Your task to perform on an android device: turn on javascript in the chrome app Image 0: 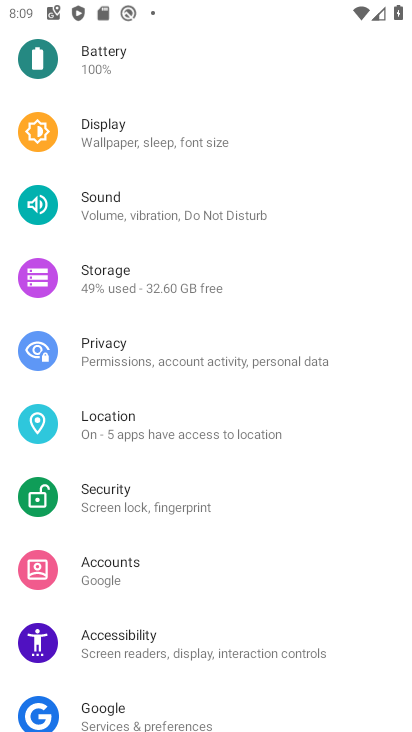
Step 0: press home button
Your task to perform on an android device: turn on javascript in the chrome app Image 1: 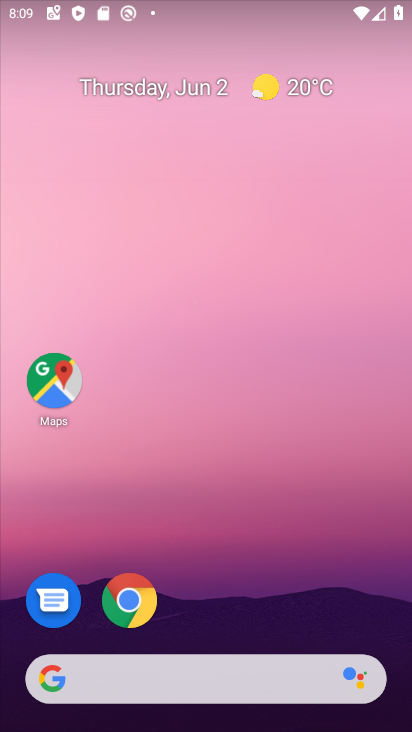
Step 1: drag from (362, 613) to (367, 248)
Your task to perform on an android device: turn on javascript in the chrome app Image 2: 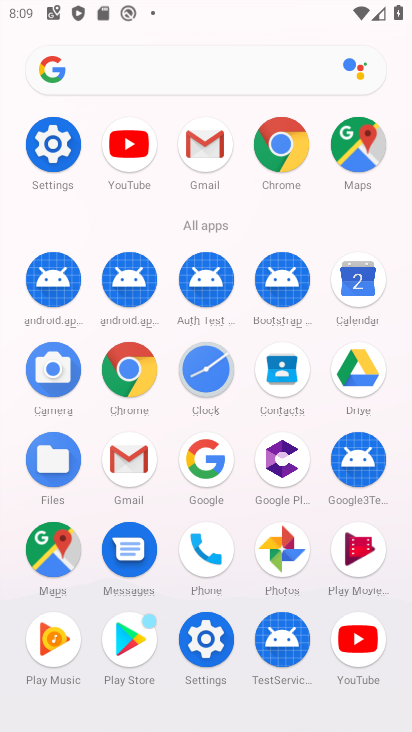
Step 2: click (134, 376)
Your task to perform on an android device: turn on javascript in the chrome app Image 3: 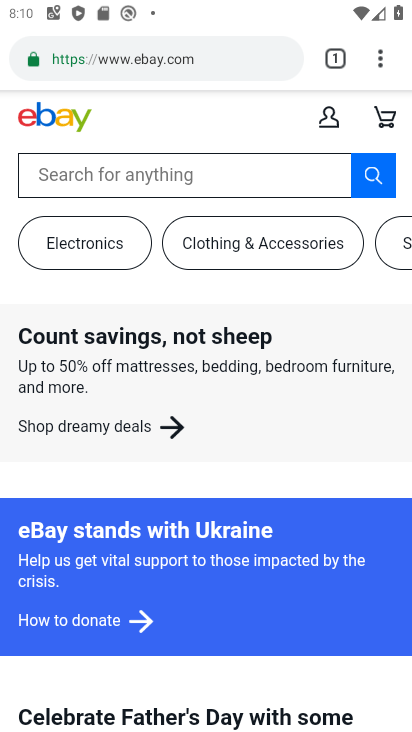
Step 3: click (379, 61)
Your task to perform on an android device: turn on javascript in the chrome app Image 4: 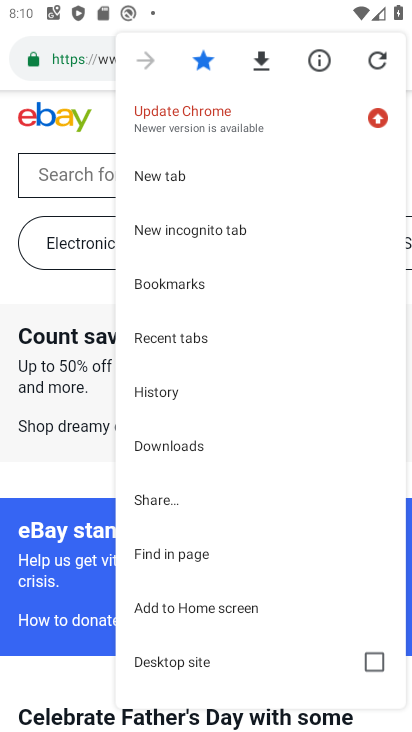
Step 4: drag from (350, 414) to (353, 334)
Your task to perform on an android device: turn on javascript in the chrome app Image 5: 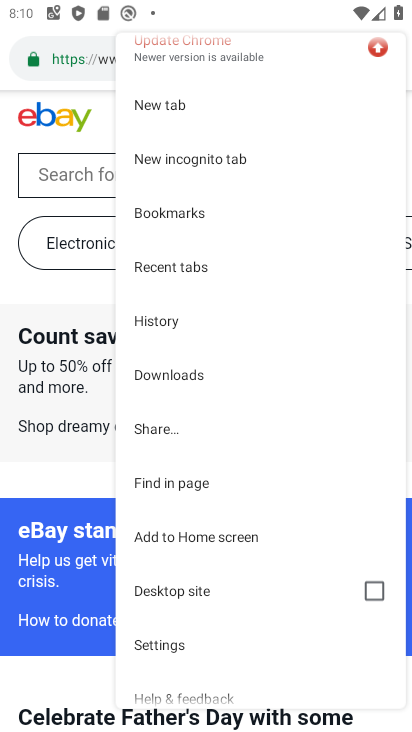
Step 5: drag from (331, 436) to (332, 303)
Your task to perform on an android device: turn on javascript in the chrome app Image 6: 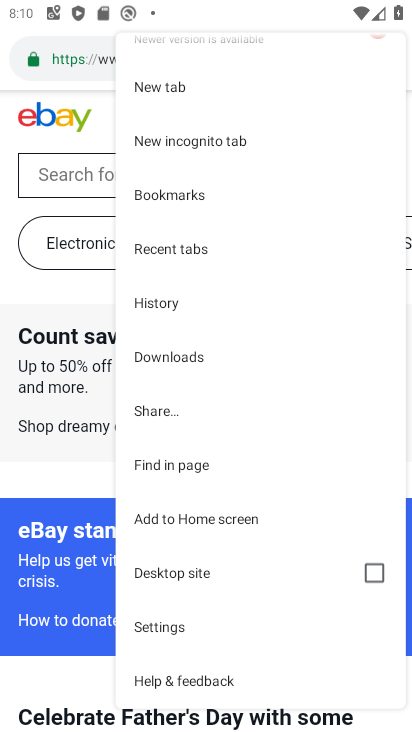
Step 6: click (208, 637)
Your task to perform on an android device: turn on javascript in the chrome app Image 7: 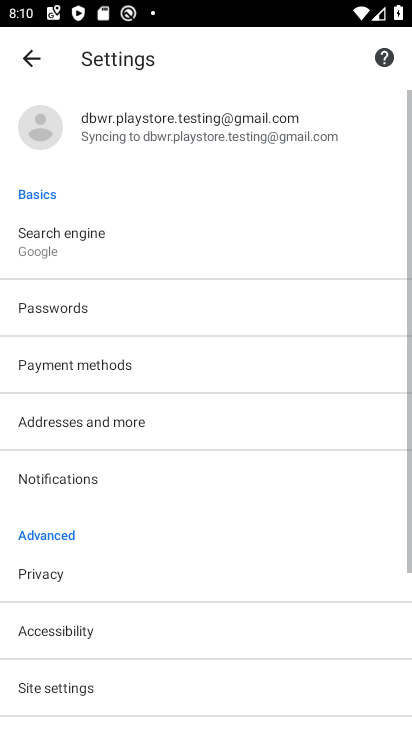
Step 7: drag from (344, 518) to (343, 423)
Your task to perform on an android device: turn on javascript in the chrome app Image 8: 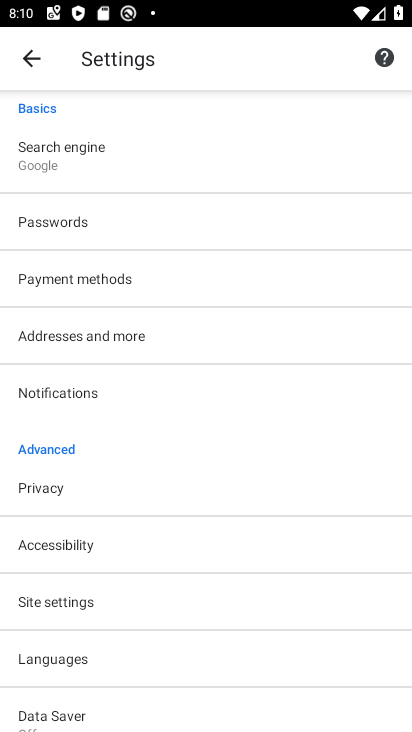
Step 8: drag from (334, 520) to (337, 345)
Your task to perform on an android device: turn on javascript in the chrome app Image 9: 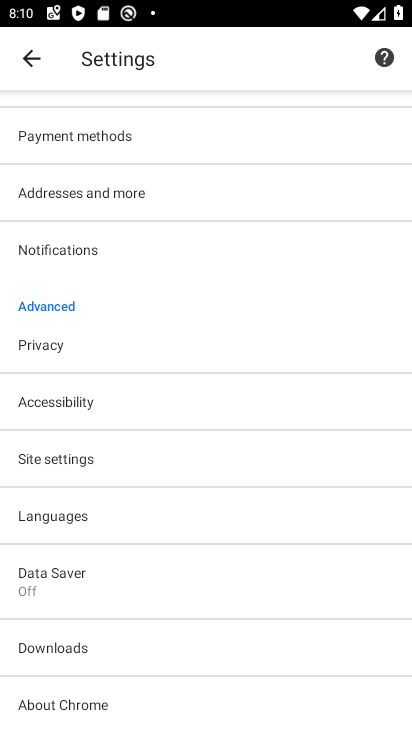
Step 9: click (248, 465)
Your task to perform on an android device: turn on javascript in the chrome app Image 10: 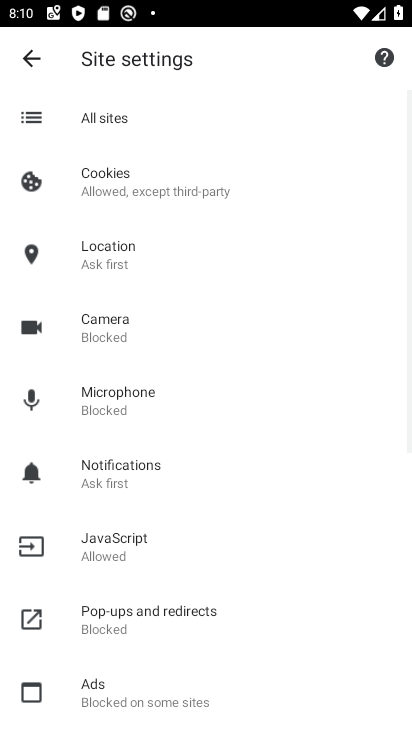
Step 10: drag from (273, 518) to (274, 412)
Your task to perform on an android device: turn on javascript in the chrome app Image 11: 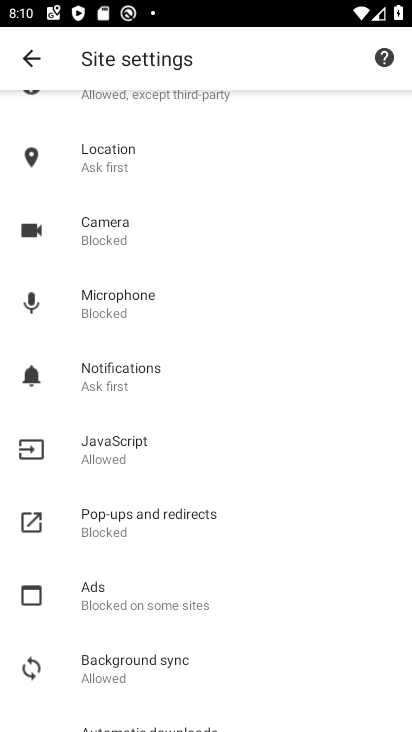
Step 11: drag from (329, 550) to (342, 438)
Your task to perform on an android device: turn on javascript in the chrome app Image 12: 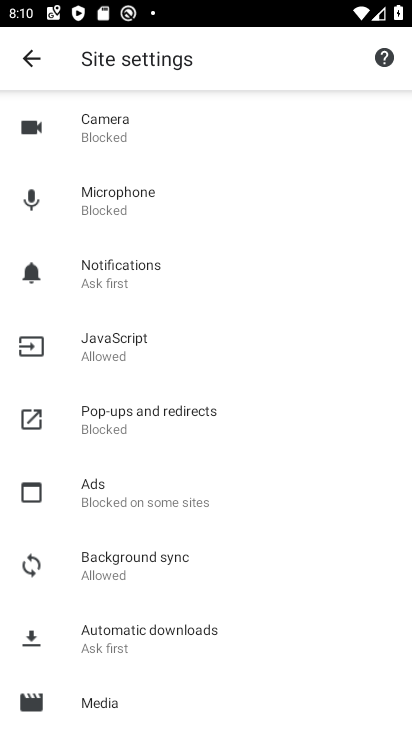
Step 12: drag from (339, 525) to (345, 421)
Your task to perform on an android device: turn on javascript in the chrome app Image 13: 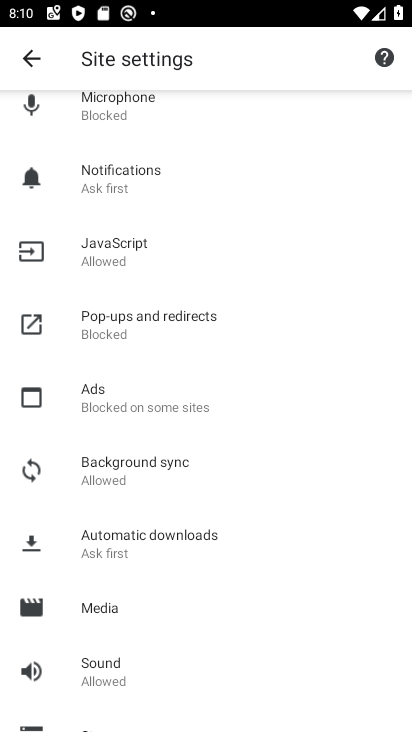
Step 13: drag from (344, 566) to (343, 417)
Your task to perform on an android device: turn on javascript in the chrome app Image 14: 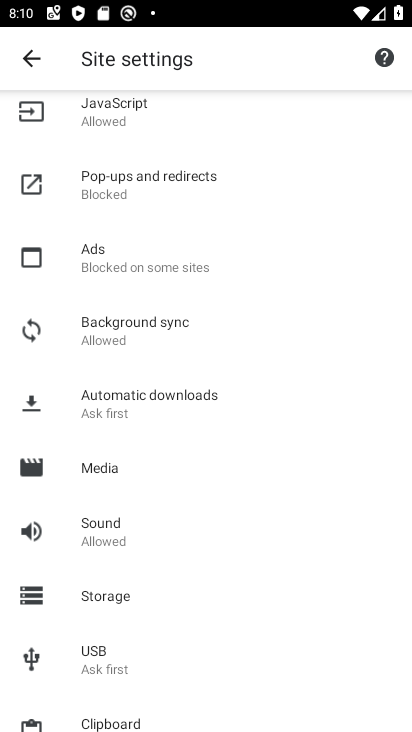
Step 14: drag from (307, 179) to (336, 438)
Your task to perform on an android device: turn on javascript in the chrome app Image 15: 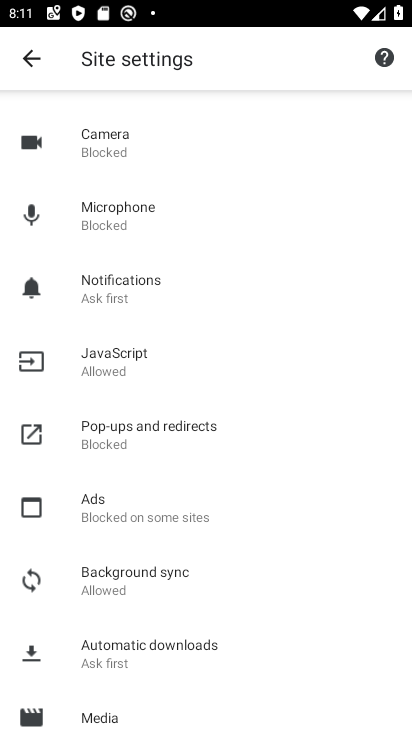
Step 15: click (171, 365)
Your task to perform on an android device: turn on javascript in the chrome app Image 16: 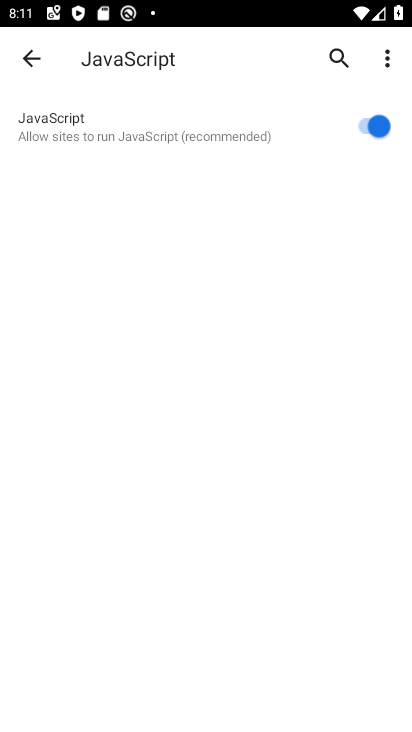
Step 16: task complete